Your task to perform on an android device: Play the last video I watched on Youtube Image 0: 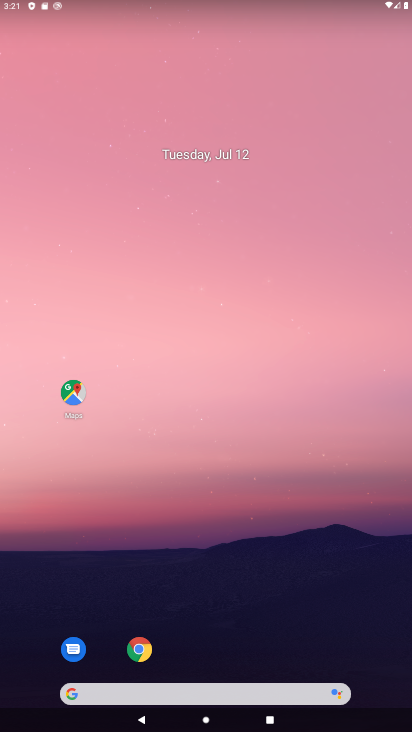
Step 0: drag from (207, 669) to (234, 67)
Your task to perform on an android device: Play the last video I watched on Youtube Image 1: 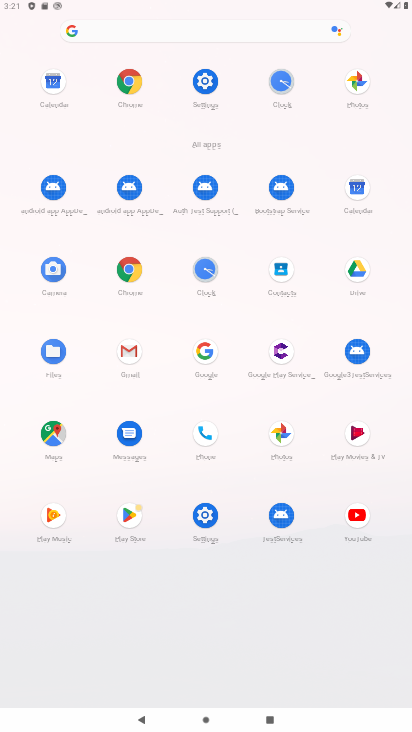
Step 1: click (357, 510)
Your task to perform on an android device: Play the last video I watched on Youtube Image 2: 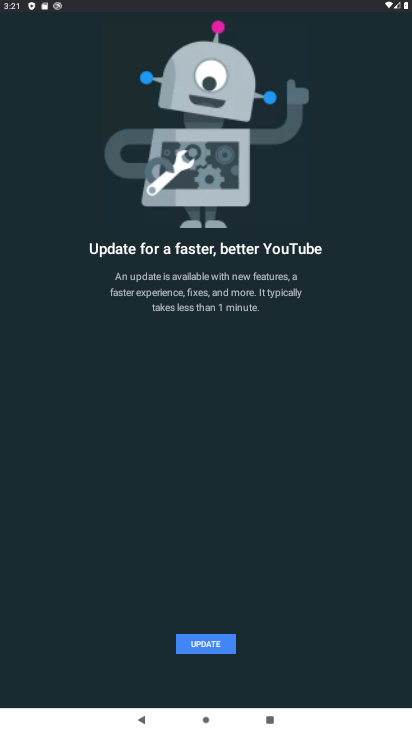
Step 2: click (206, 639)
Your task to perform on an android device: Play the last video I watched on Youtube Image 3: 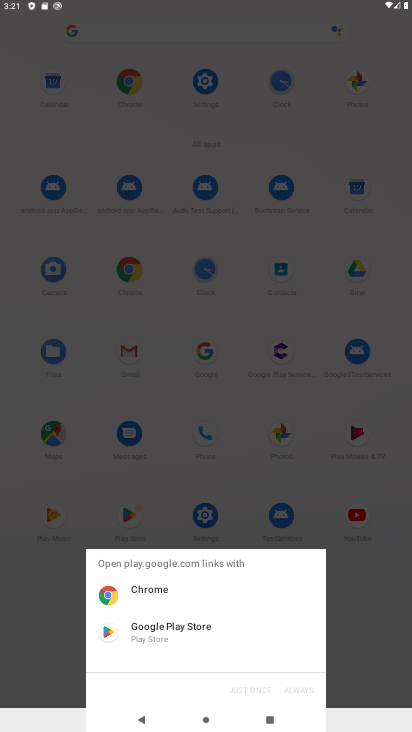
Step 3: click (169, 629)
Your task to perform on an android device: Play the last video I watched on Youtube Image 4: 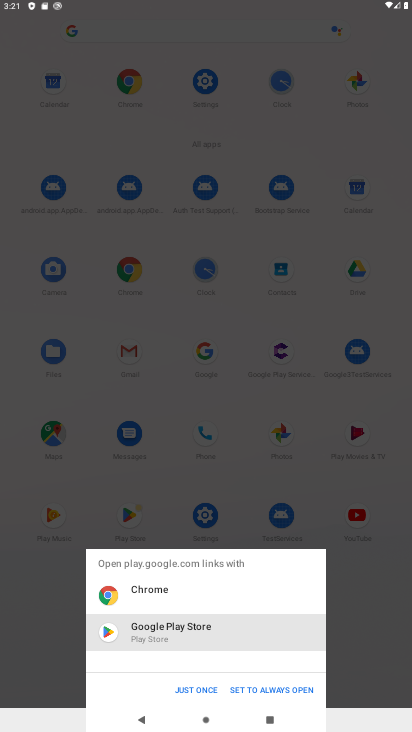
Step 4: click (197, 685)
Your task to perform on an android device: Play the last video I watched on Youtube Image 5: 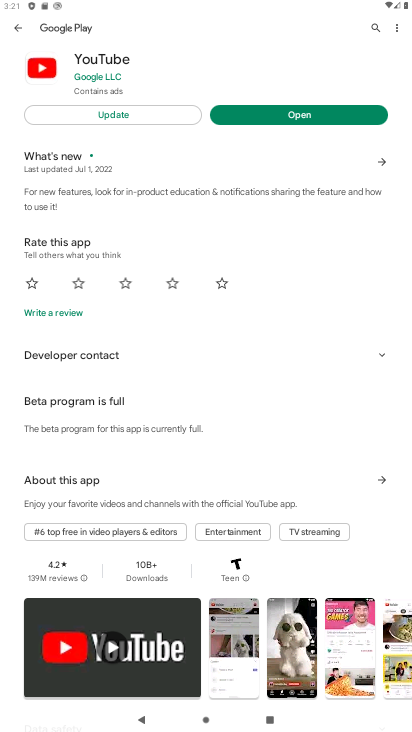
Step 5: click (119, 113)
Your task to perform on an android device: Play the last video I watched on Youtube Image 6: 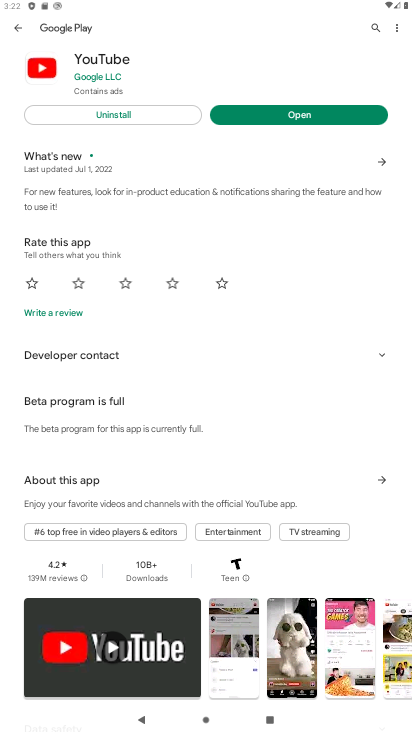
Step 6: click (307, 112)
Your task to perform on an android device: Play the last video I watched on Youtube Image 7: 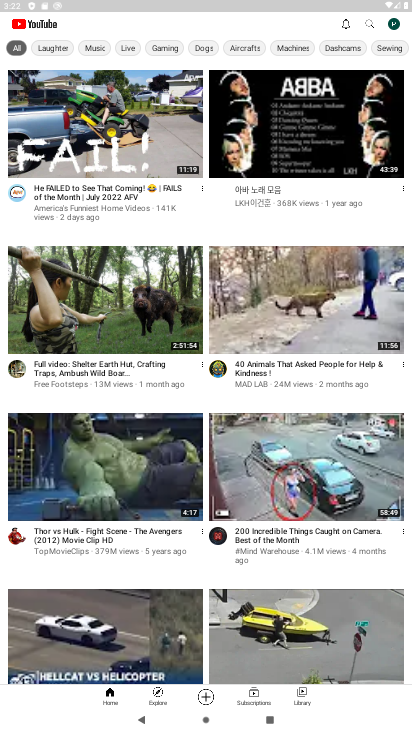
Step 7: click (297, 692)
Your task to perform on an android device: Play the last video I watched on Youtube Image 8: 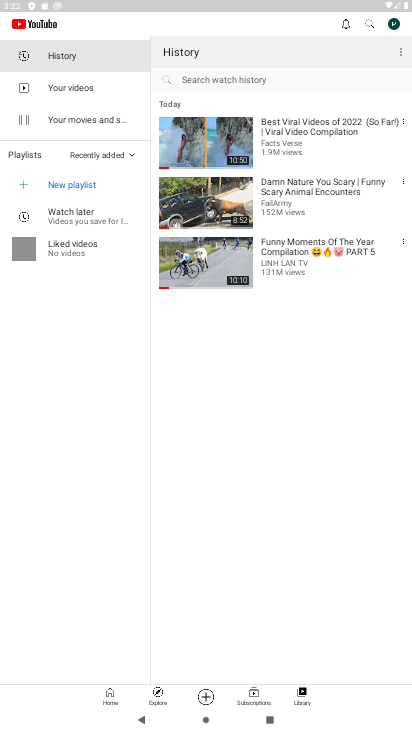
Step 8: click (302, 131)
Your task to perform on an android device: Play the last video I watched on Youtube Image 9: 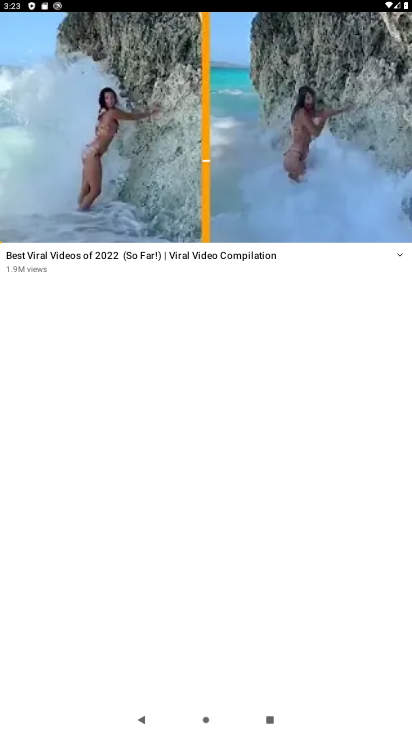
Step 9: task complete